Your task to perform on an android device: turn on airplane mode Image 0: 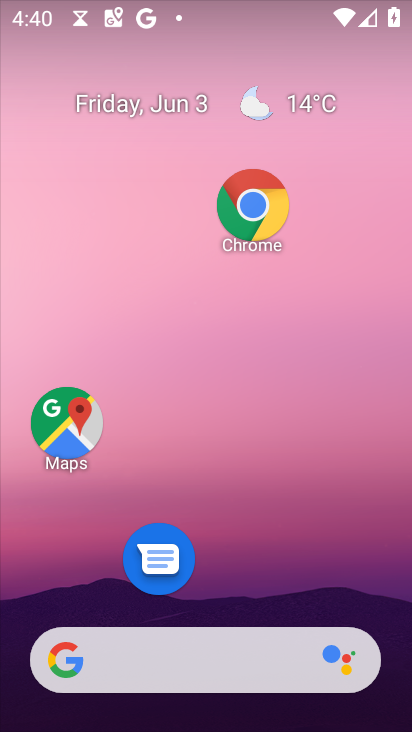
Step 0: drag from (237, 665) to (165, 163)
Your task to perform on an android device: turn on airplane mode Image 1: 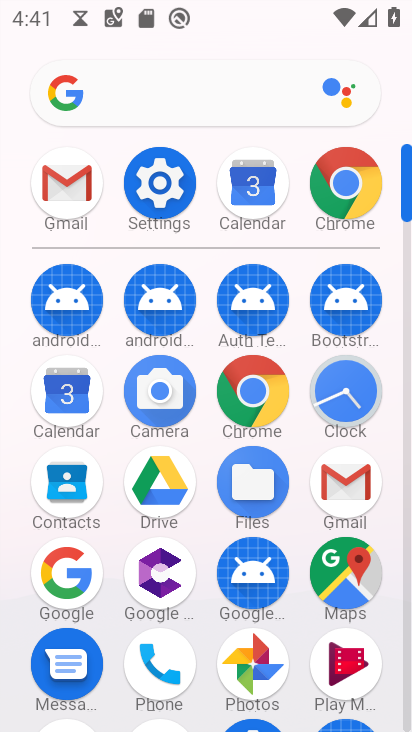
Step 1: click (162, 193)
Your task to perform on an android device: turn on airplane mode Image 2: 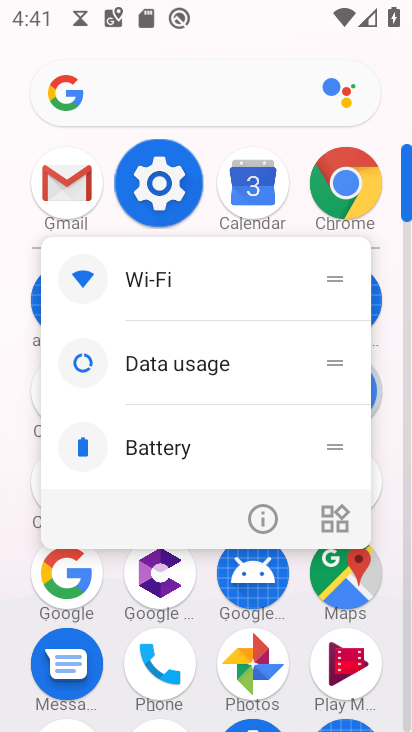
Step 2: click (161, 196)
Your task to perform on an android device: turn on airplane mode Image 3: 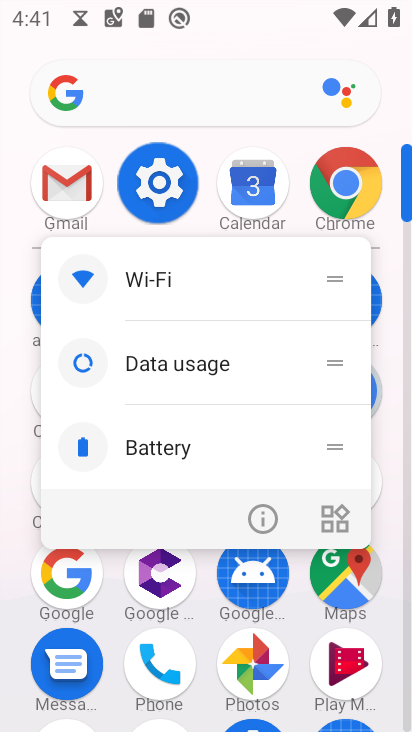
Step 3: click (161, 196)
Your task to perform on an android device: turn on airplane mode Image 4: 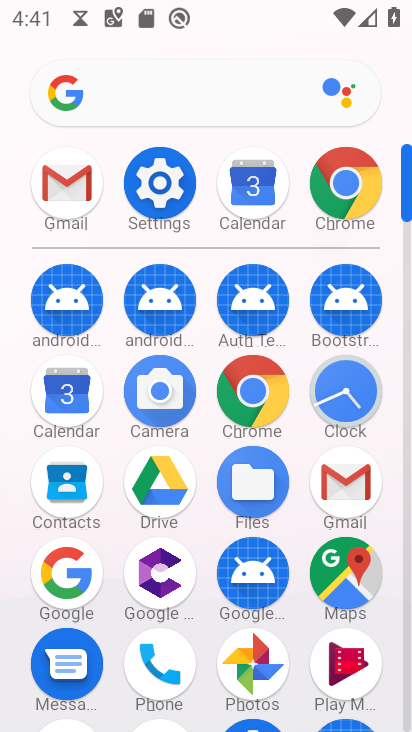
Step 4: click (163, 197)
Your task to perform on an android device: turn on airplane mode Image 5: 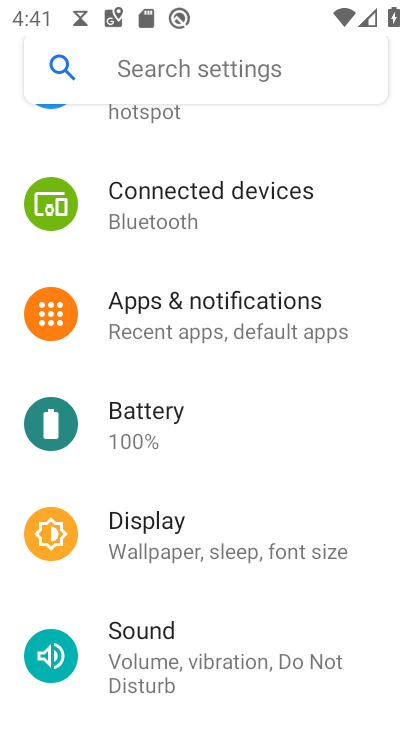
Step 5: drag from (180, 537) to (148, 200)
Your task to perform on an android device: turn on airplane mode Image 6: 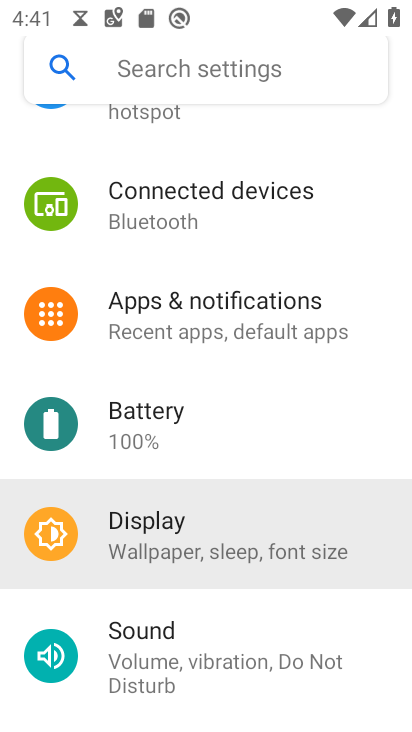
Step 6: drag from (188, 403) to (172, 192)
Your task to perform on an android device: turn on airplane mode Image 7: 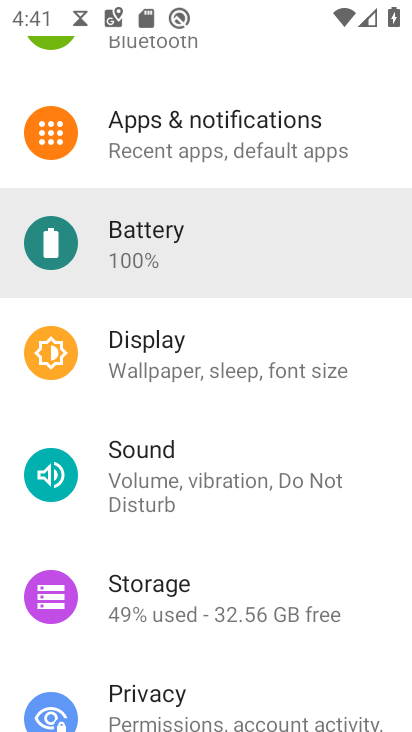
Step 7: drag from (239, 451) to (209, 269)
Your task to perform on an android device: turn on airplane mode Image 8: 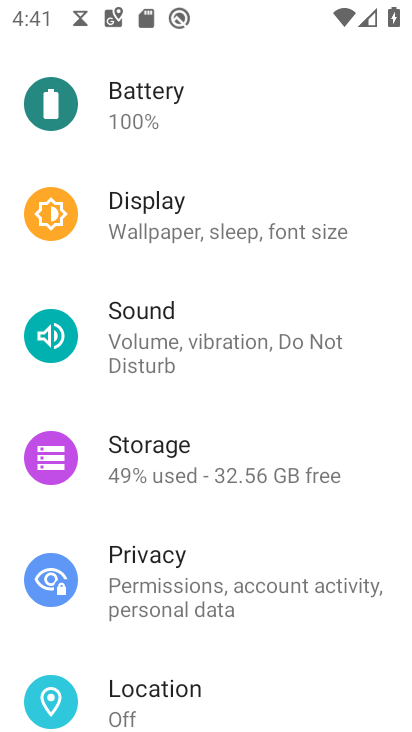
Step 8: drag from (247, 447) to (221, 217)
Your task to perform on an android device: turn on airplane mode Image 9: 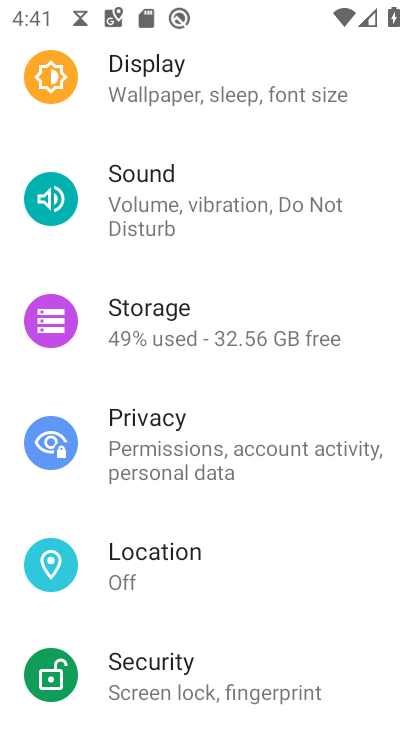
Step 9: drag from (187, 221) to (247, 593)
Your task to perform on an android device: turn on airplane mode Image 10: 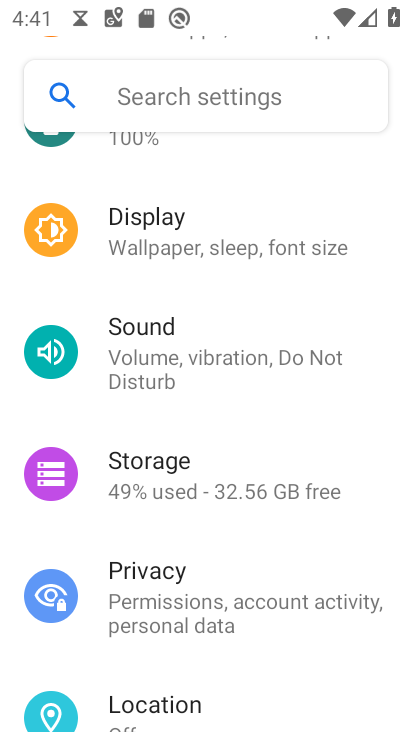
Step 10: click (217, 492)
Your task to perform on an android device: turn on airplane mode Image 11: 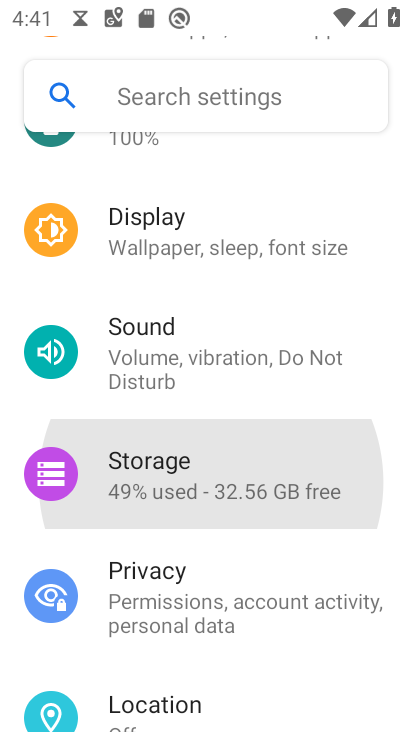
Step 11: drag from (185, 274) to (187, 469)
Your task to perform on an android device: turn on airplane mode Image 12: 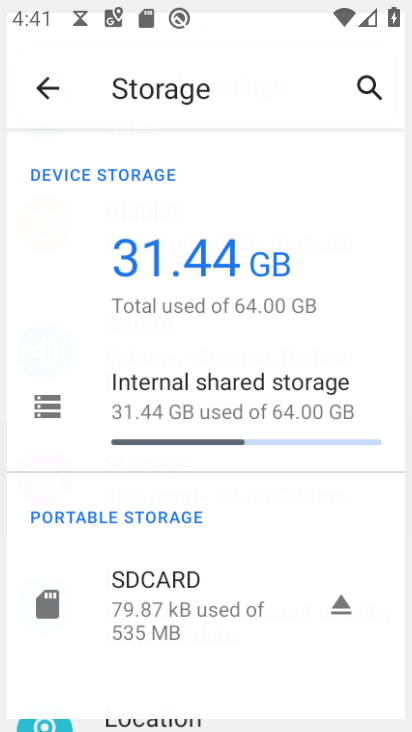
Step 12: drag from (172, 314) to (202, 418)
Your task to perform on an android device: turn on airplane mode Image 13: 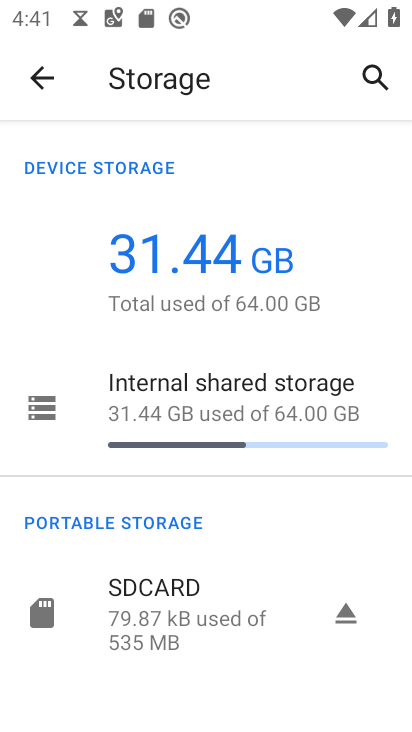
Step 13: click (40, 67)
Your task to perform on an android device: turn on airplane mode Image 14: 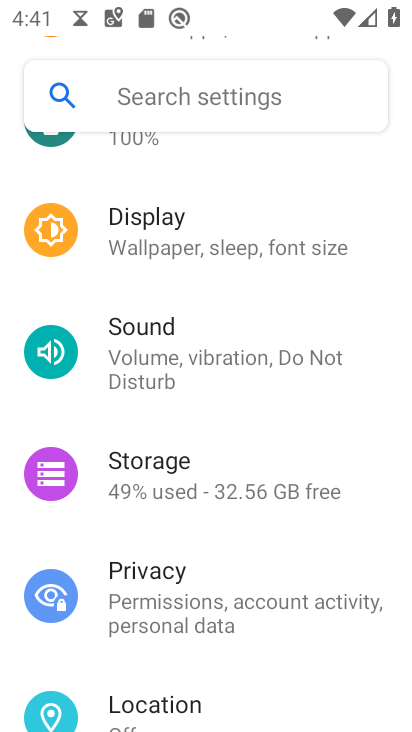
Step 14: drag from (177, 214) to (200, 588)
Your task to perform on an android device: turn on airplane mode Image 15: 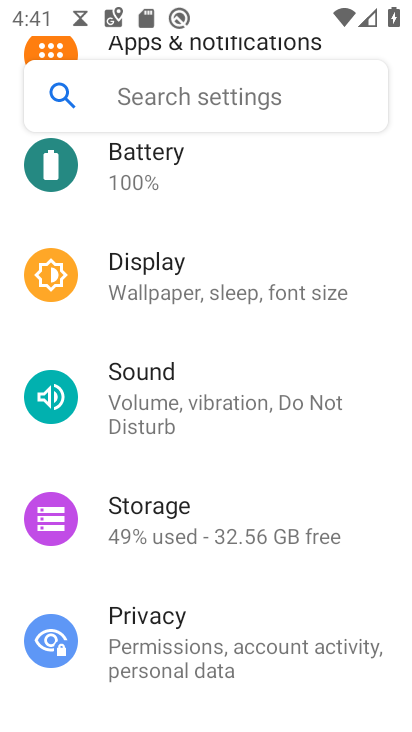
Step 15: drag from (170, 316) to (200, 646)
Your task to perform on an android device: turn on airplane mode Image 16: 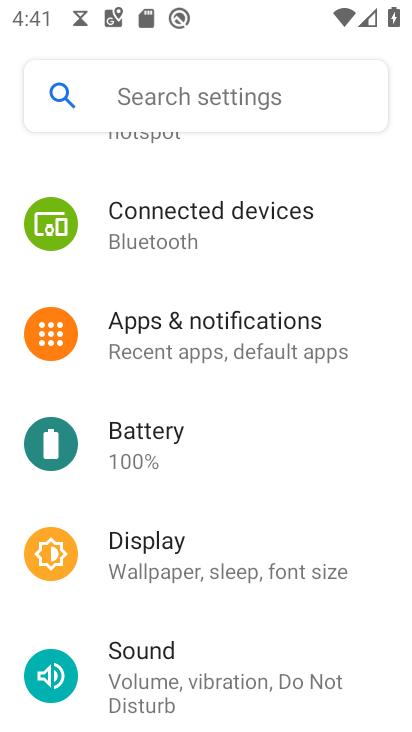
Step 16: drag from (182, 220) to (202, 555)
Your task to perform on an android device: turn on airplane mode Image 17: 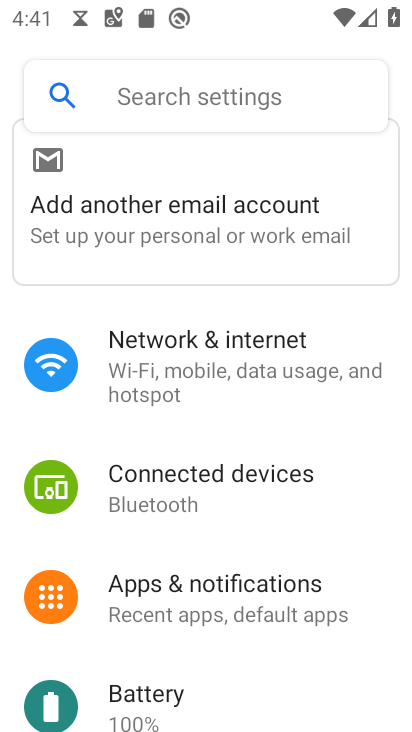
Step 17: click (189, 607)
Your task to perform on an android device: turn on airplane mode Image 18: 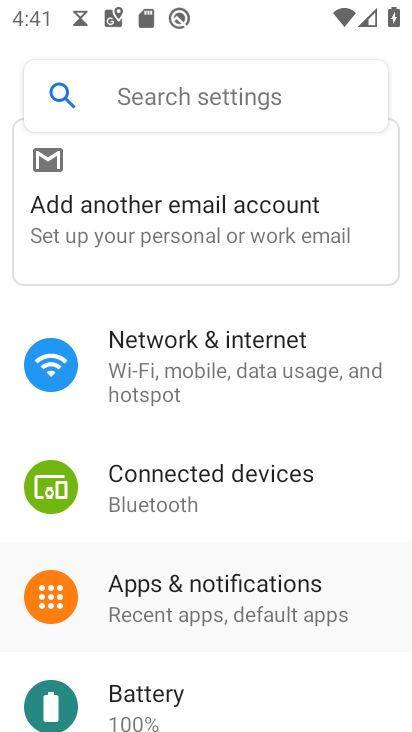
Step 18: click (189, 608)
Your task to perform on an android device: turn on airplane mode Image 19: 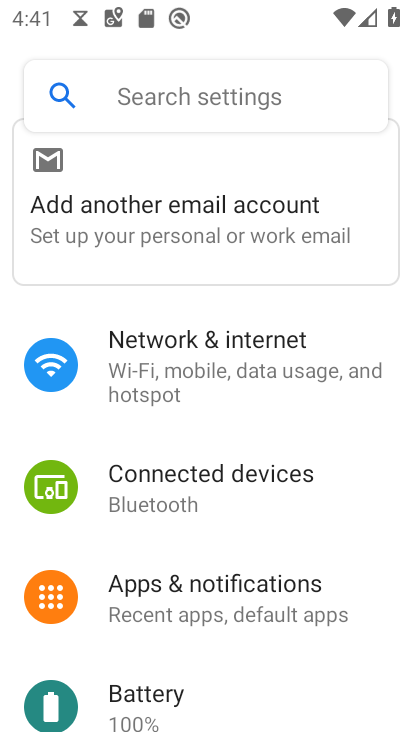
Step 19: click (189, 608)
Your task to perform on an android device: turn on airplane mode Image 20: 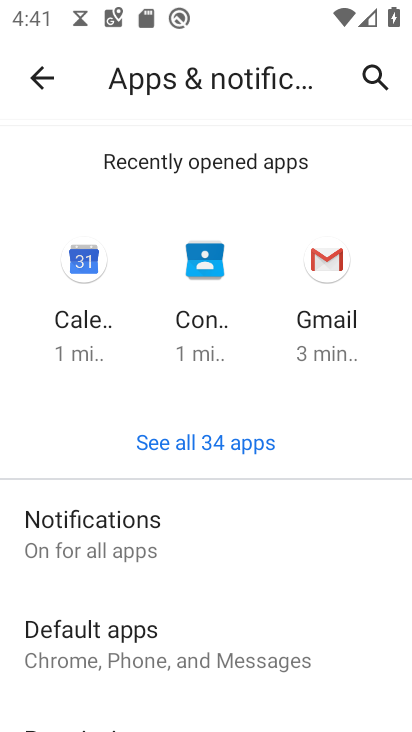
Step 20: drag from (148, 539) to (135, 260)
Your task to perform on an android device: turn on airplane mode Image 21: 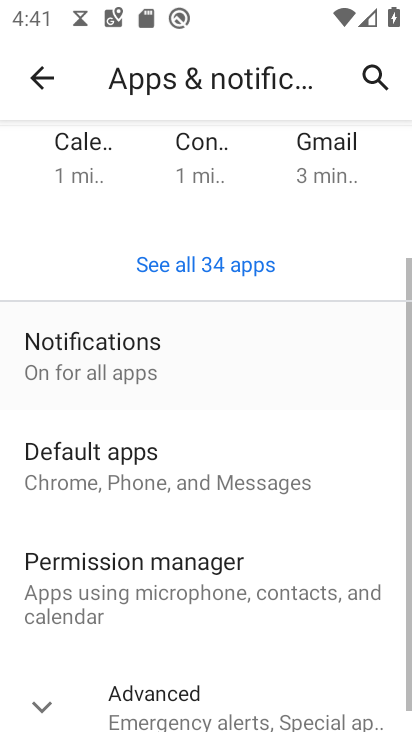
Step 21: drag from (164, 540) to (149, 309)
Your task to perform on an android device: turn on airplane mode Image 22: 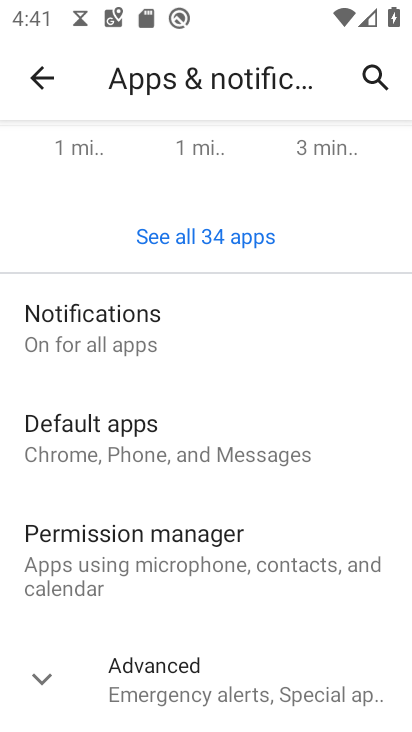
Step 22: click (41, 76)
Your task to perform on an android device: turn on airplane mode Image 23: 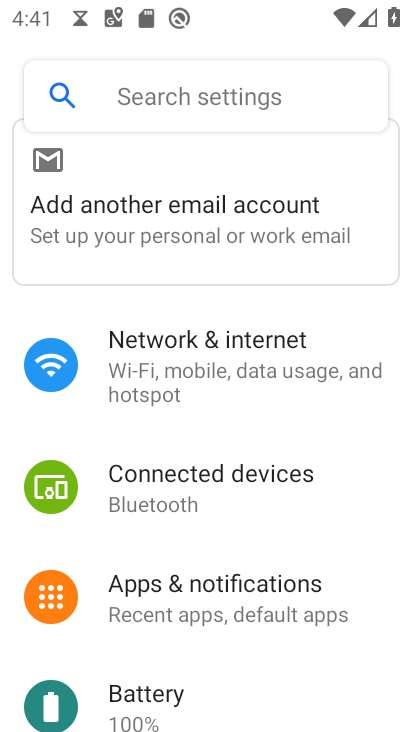
Step 23: click (260, 360)
Your task to perform on an android device: turn on airplane mode Image 24: 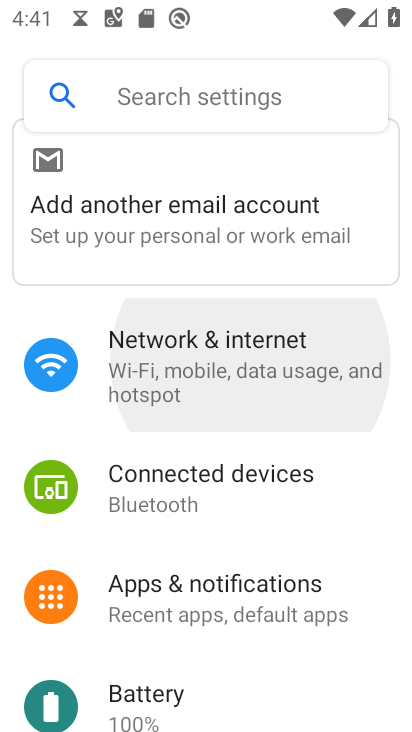
Step 24: click (261, 361)
Your task to perform on an android device: turn on airplane mode Image 25: 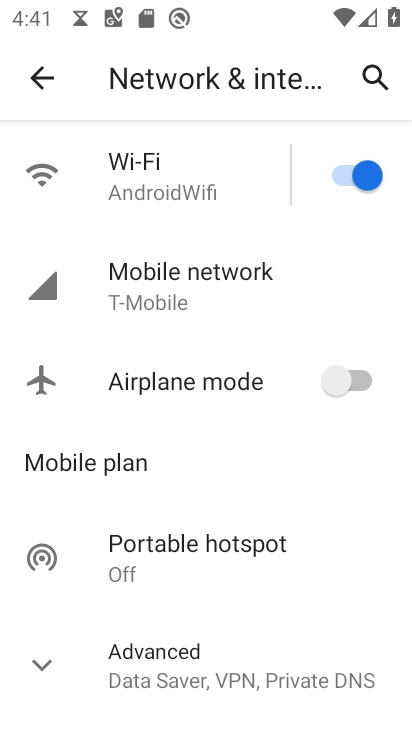
Step 25: click (348, 378)
Your task to perform on an android device: turn on airplane mode Image 26: 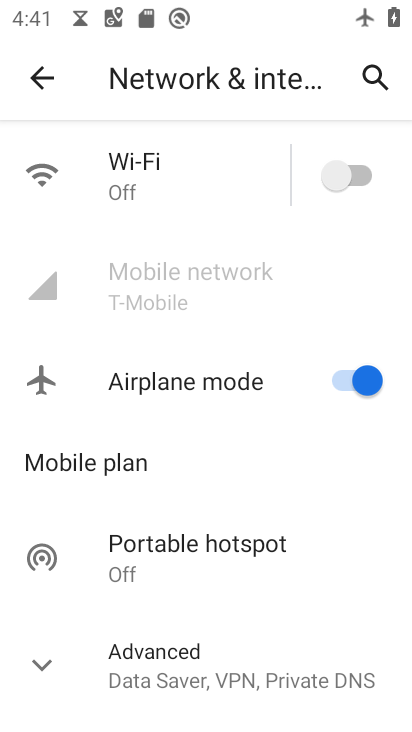
Step 26: task complete